Your task to perform on an android device: Open the map Image 0: 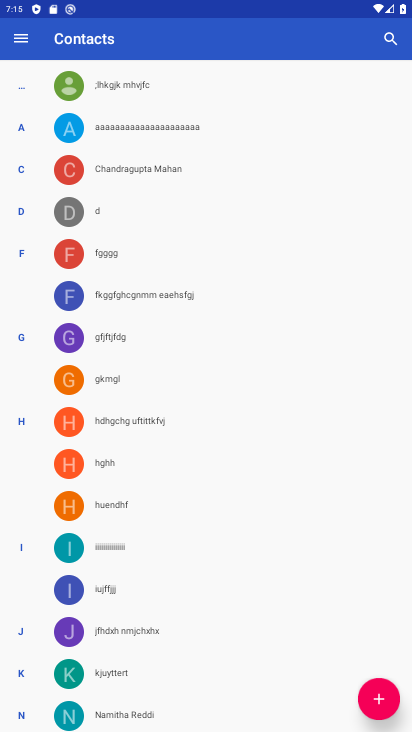
Step 0: press home button
Your task to perform on an android device: Open the map Image 1: 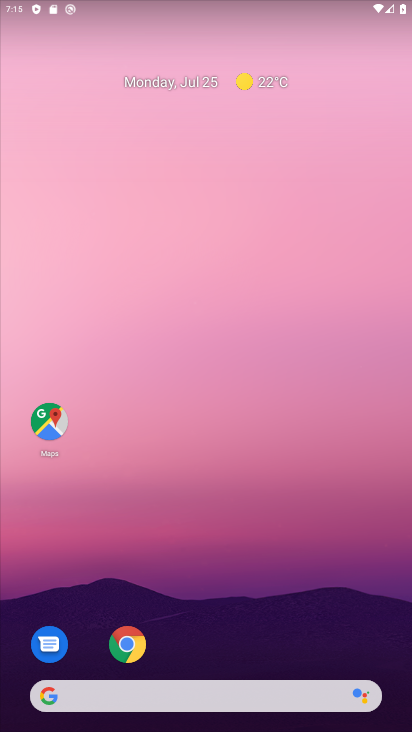
Step 1: click (50, 416)
Your task to perform on an android device: Open the map Image 2: 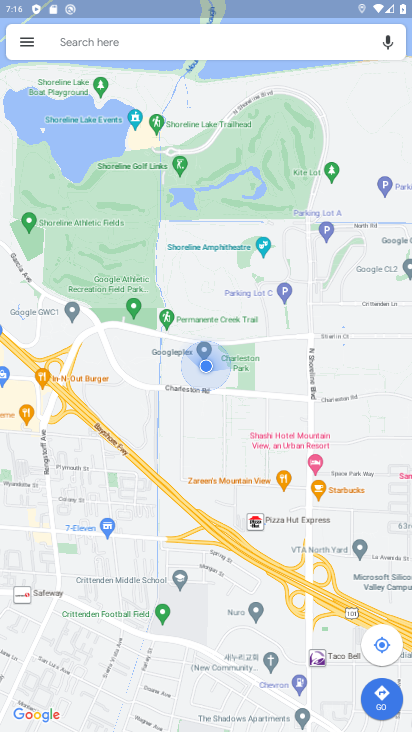
Step 2: task complete